Your task to perform on an android device: Go to wifi settings Image 0: 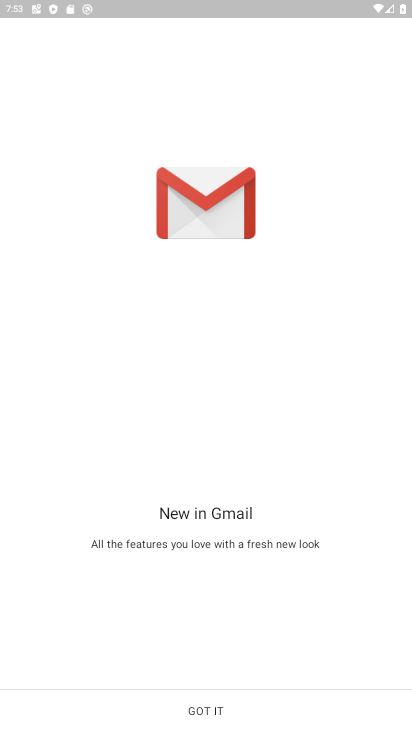
Step 0: press home button
Your task to perform on an android device: Go to wifi settings Image 1: 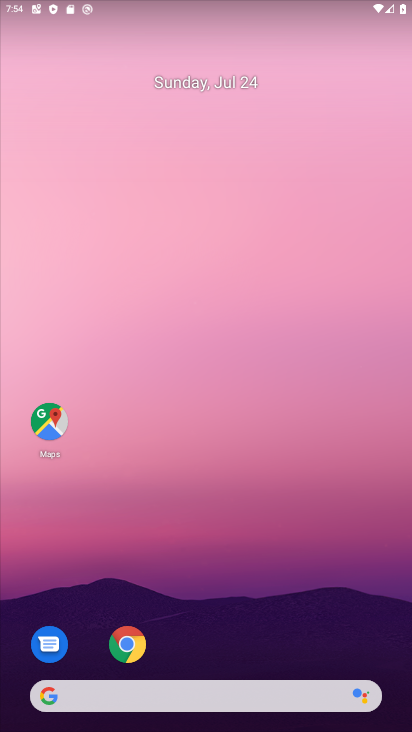
Step 1: drag from (82, 6) to (157, 414)
Your task to perform on an android device: Go to wifi settings Image 2: 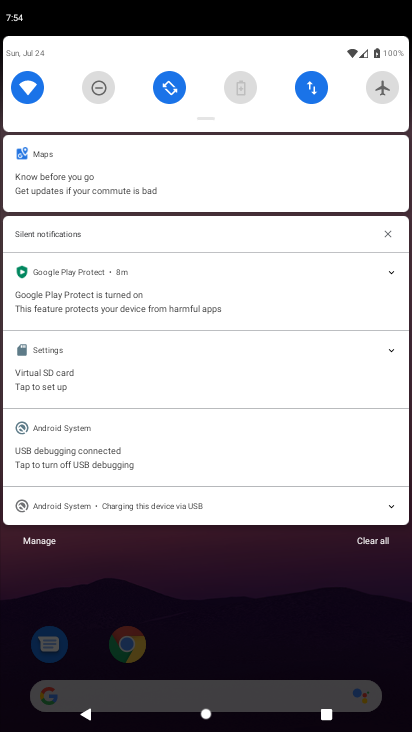
Step 2: click (25, 86)
Your task to perform on an android device: Go to wifi settings Image 3: 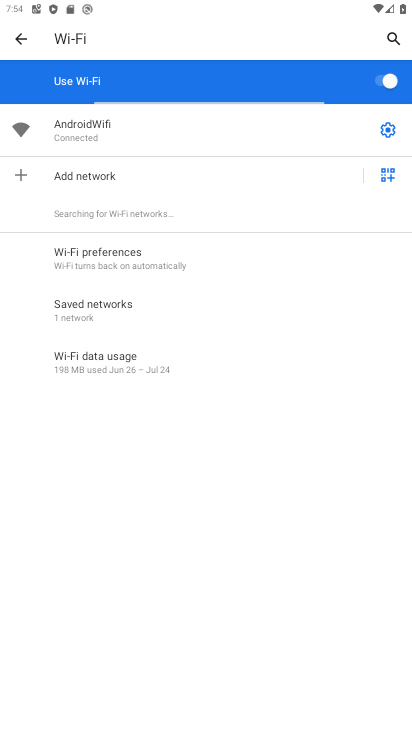
Step 3: task complete